Your task to perform on an android device: turn on the 24-hour format for clock Image 0: 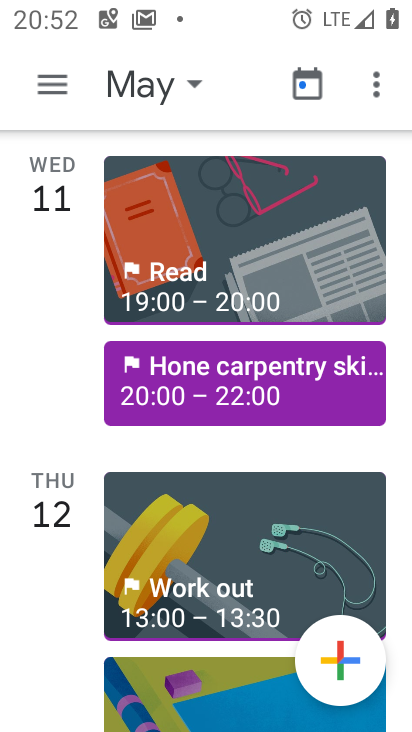
Step 0: press home button
Your task to perform on an android device: turn on the 24-hour format for clock Image 1: 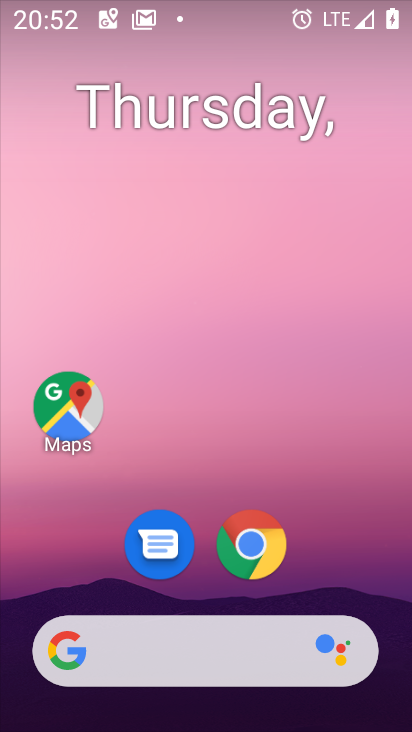
Step 1: drag from (196, 599) to (215, 133)
Your task to perform on an android device: turn on the 24-hour format for clock Image 2: 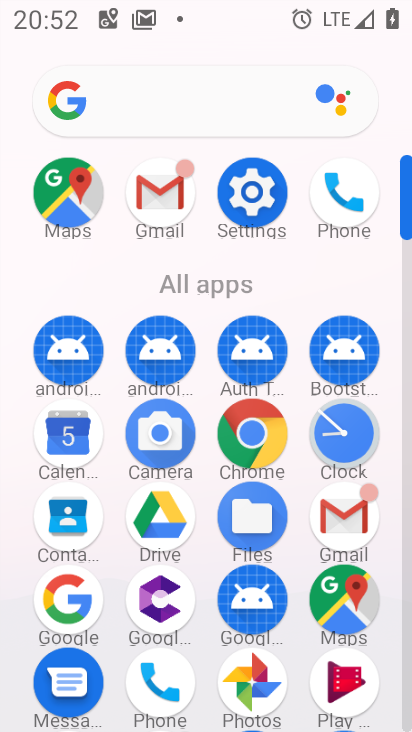
Step 2: click (337, 414)
Your task to perform on an android device: turn on the 24-hour format for clock Image 3: 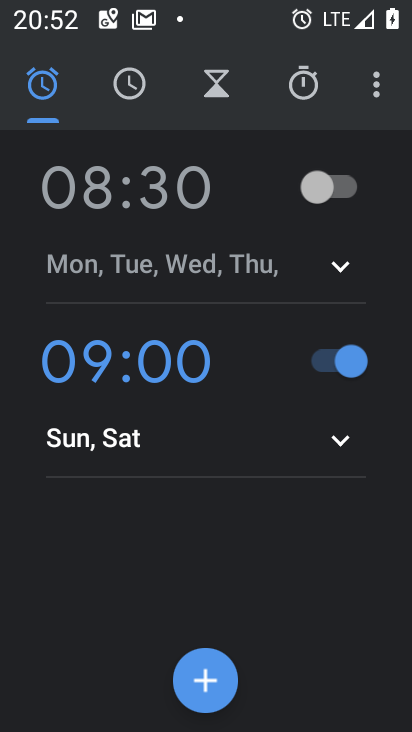
Step 3: click (365, 78)
Your task to perform on an android device: turn on the 24-hour format for clock Image 4: 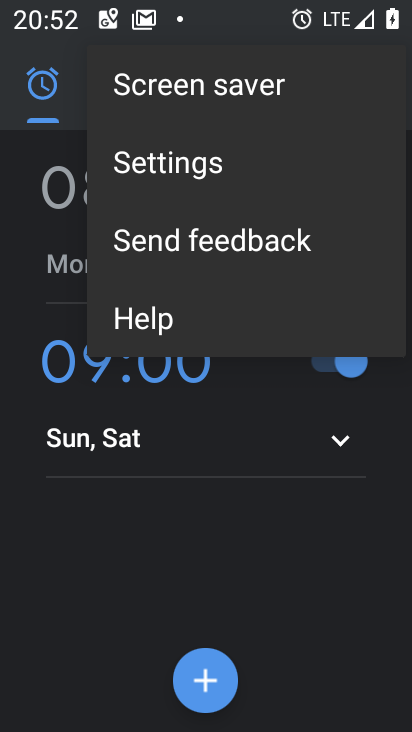
Step 4: click (202, 189)
Your task to perform on an android device: turn on the 24-hour format for clock Image 5: 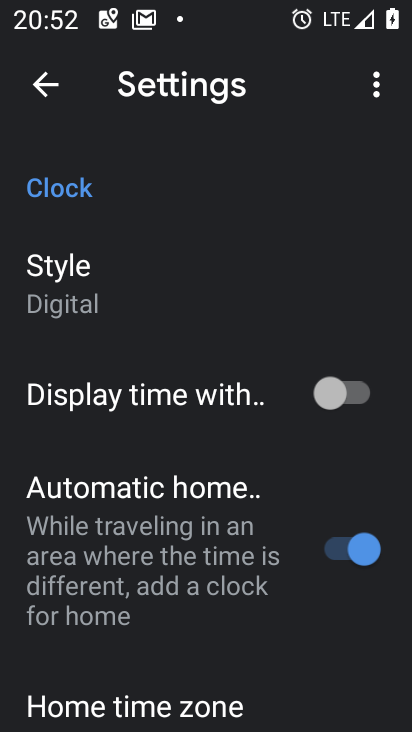
Step 5: drag from (131, 614) to (202, 343)
Your task to perform on an android device: turn on the 24-hour format for clock Image 6: 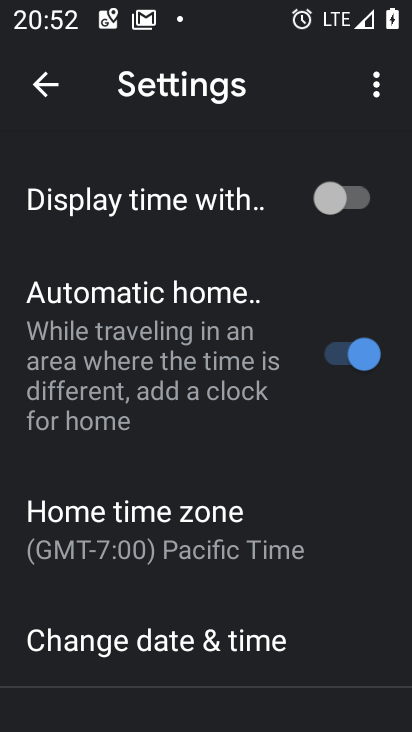
Step 6: click (179, 641)
Your task to perform on an android device: turn on the 24-hour format for clock Image 7: 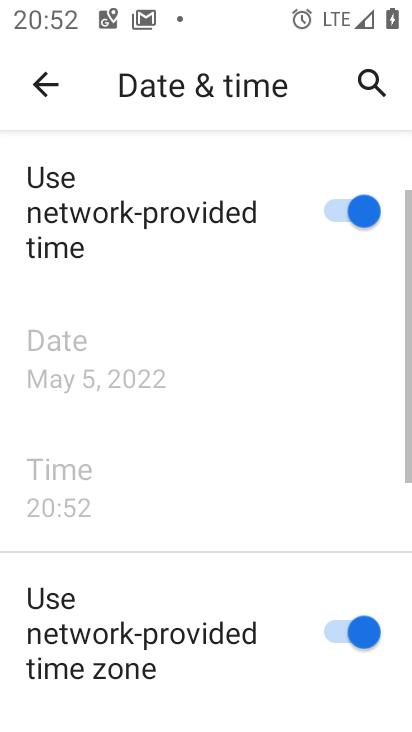
Step 7: task complete